Your task to perform on an android device: Search for a new mascara Image 0: 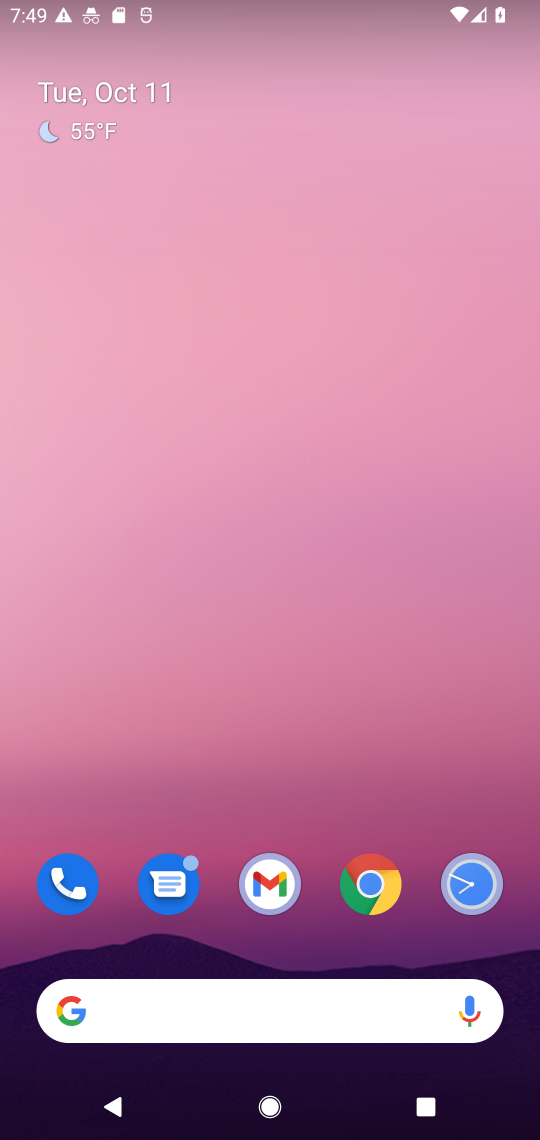
Step 0: drag from (327, 960) to (235, 52)
Your task to perform on an android device: Search for a new mascara Image 1: 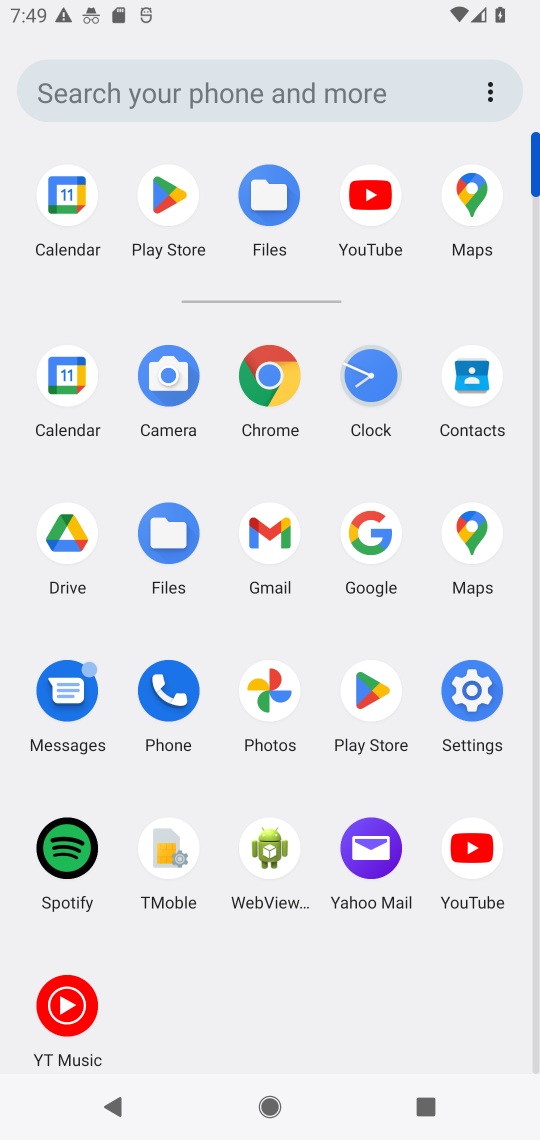
Step 1: click (370, 542)
Your task to perform on an android device: Search for a new mascara Image 2: 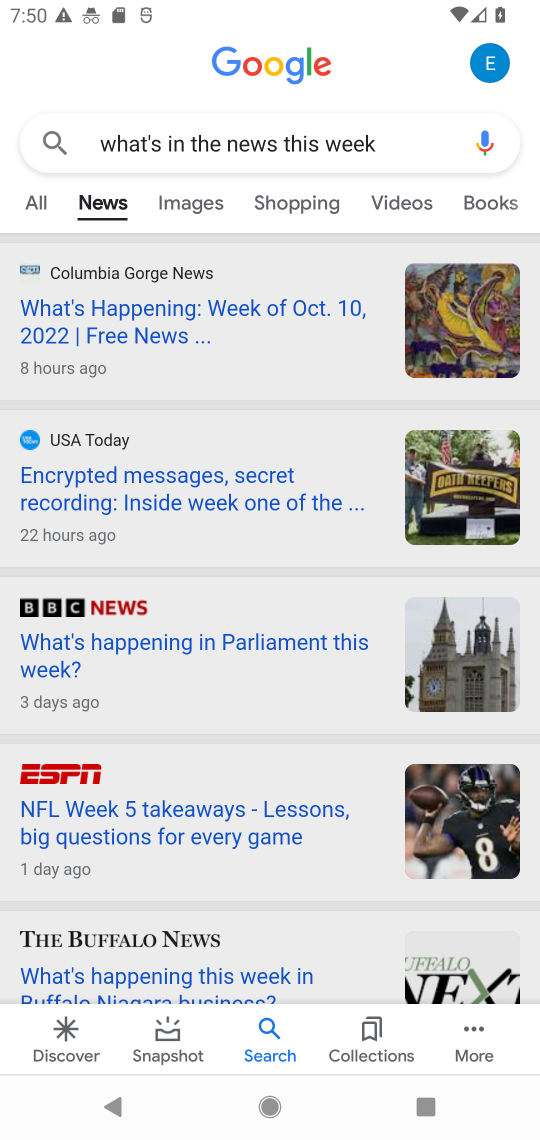
Step 2: press home button
Your task to perform on an android device: Search for a new mascara Image 3: 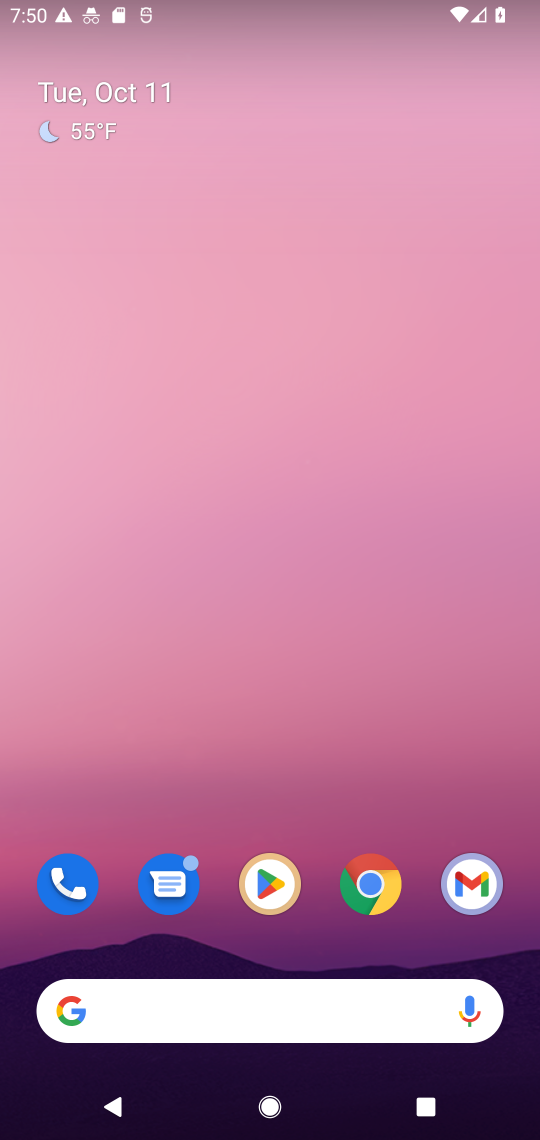
Step 3: drag from (313, 921) to (250, 2)
Your task to perform on an android device: Search for a new mascara Image 4: 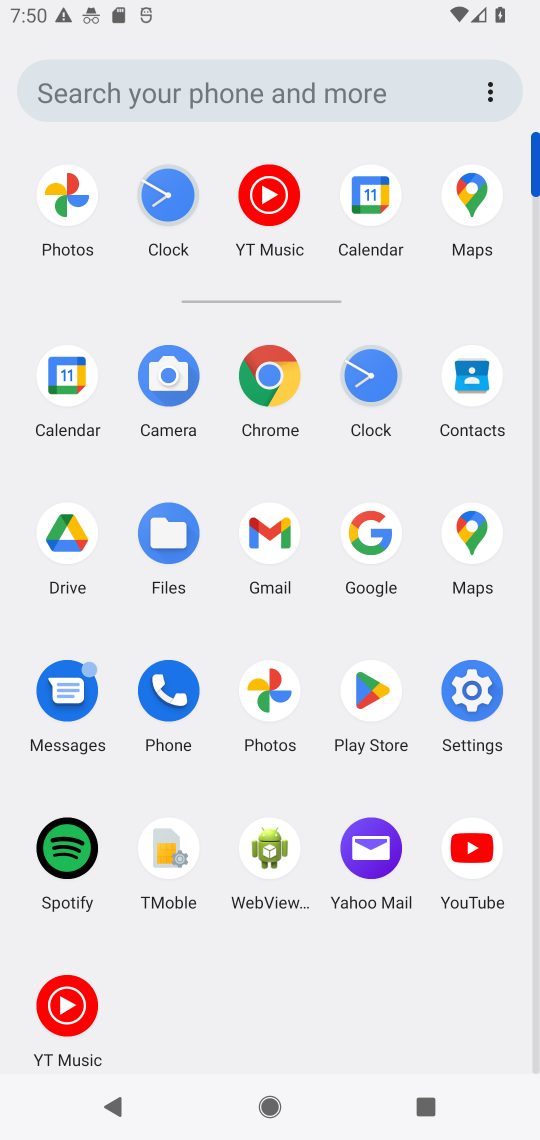
Step 4: click (369, 530)
Your task to perform on an android device: Search for a new mascara Image 5: 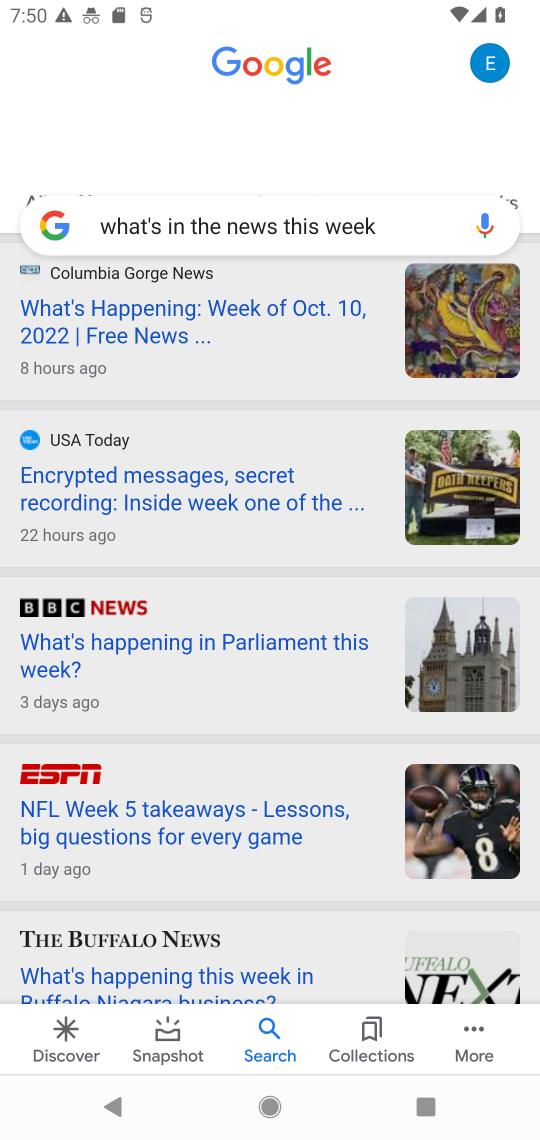
Step 5: click (393, 224)
Your task to perform on an android device: Search for a new mascara Image 6: 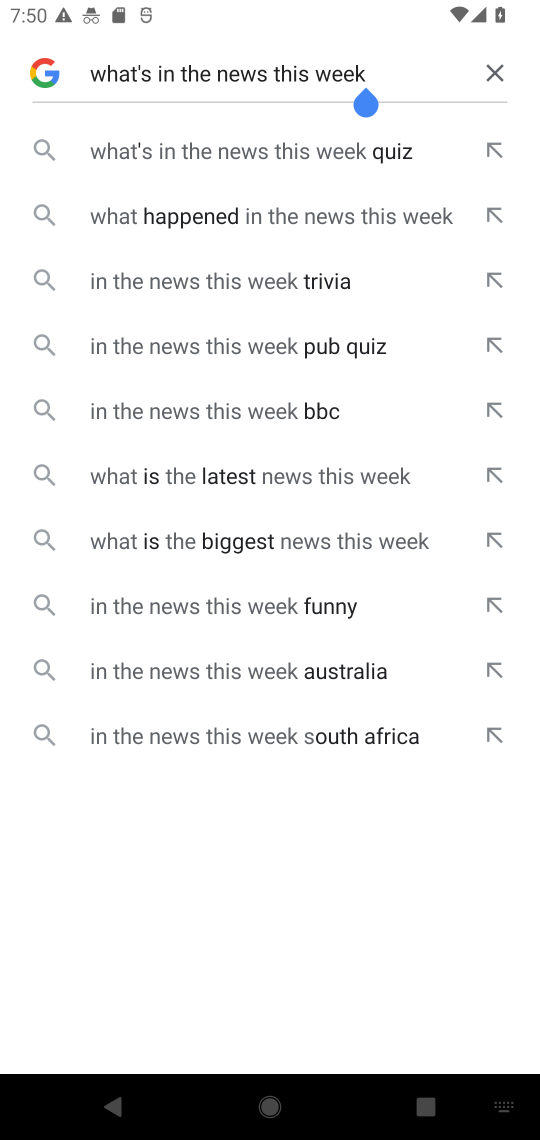
Step 6: click (493, 69)
Your task to perform on an android device: Search for a new mascara Image 7: 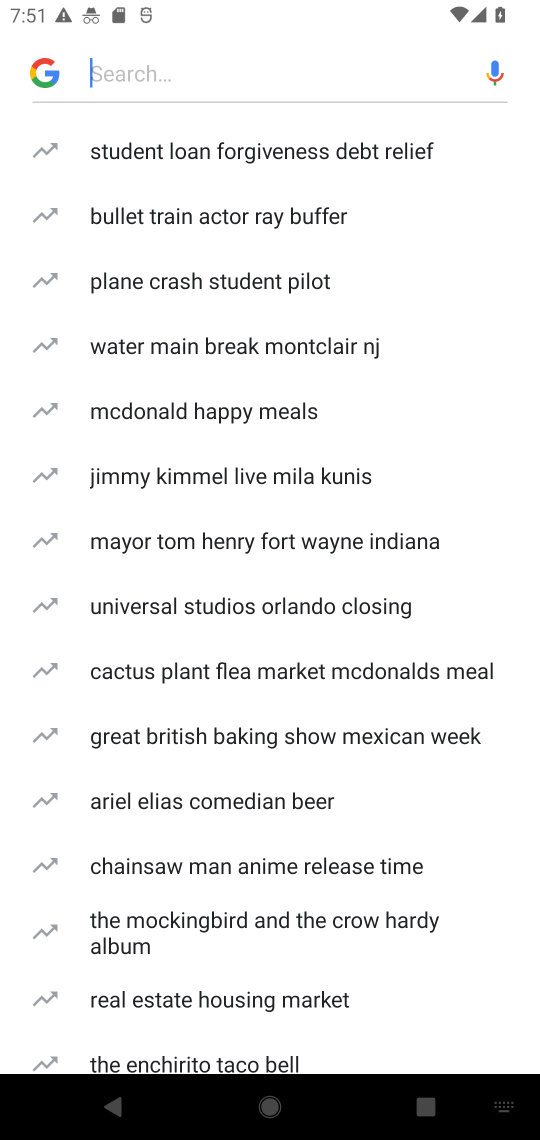
Step 7: type "new mascara"
Your task to perform on an android device: Search for a new mascara Image 8: 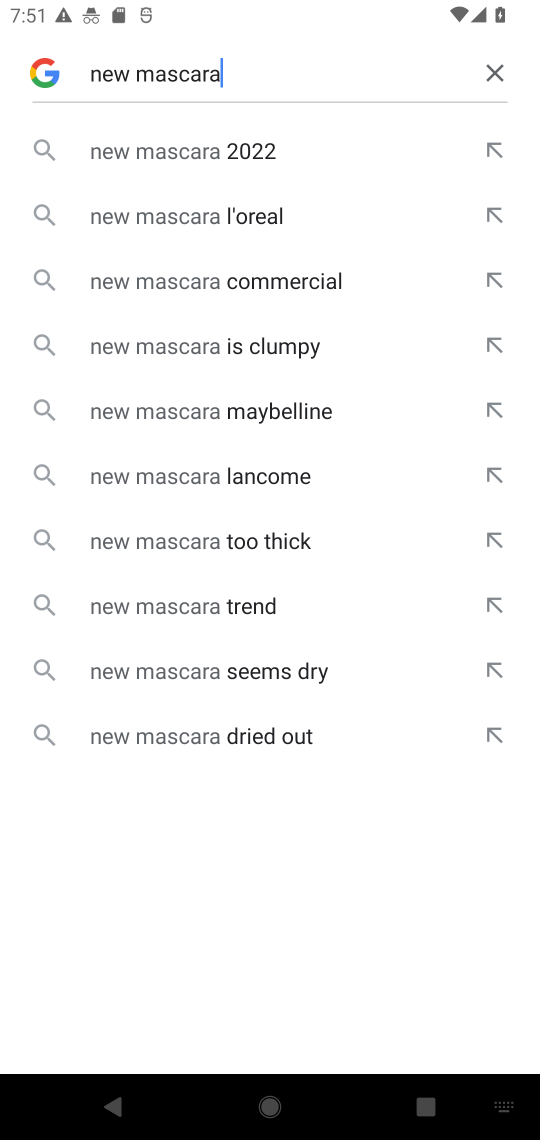
Step 8: click (231, 147)
Your task to perform on an android device: Search for a new mascara Image 9: 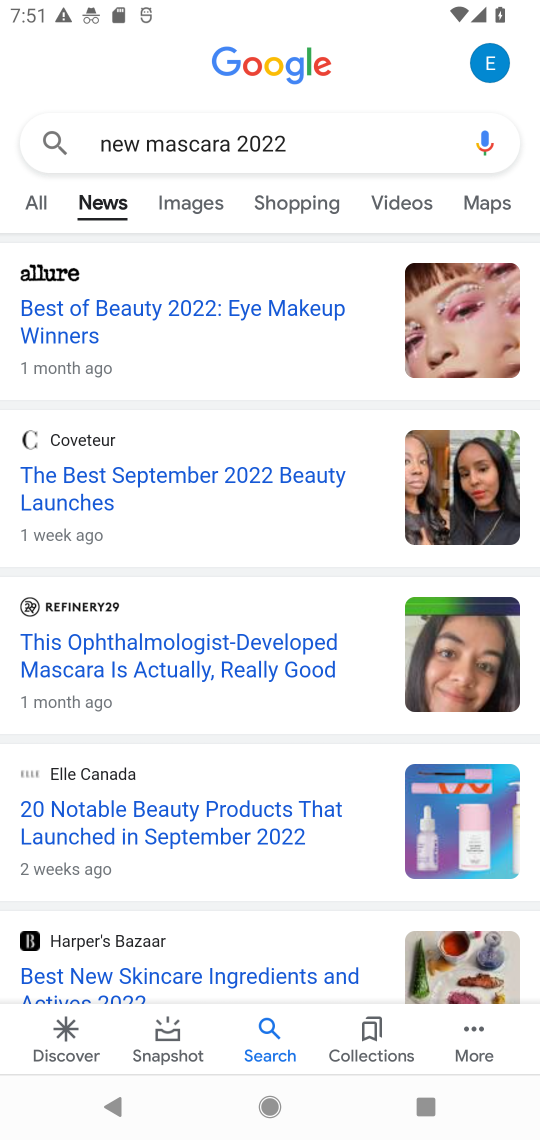
Step 9: click (46, 196)
Your task to perform on an android device: Search for a new mascara Image 10: 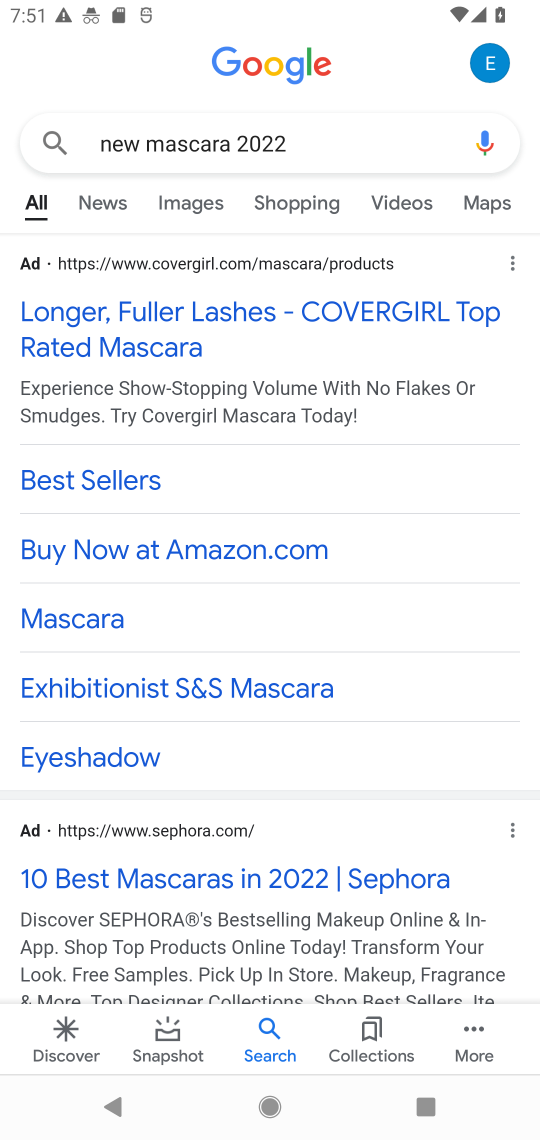
Step 10: drag from (250, 884) to (210, 522)
Your task to perform on an android device: Search for a new mascara Image 11: 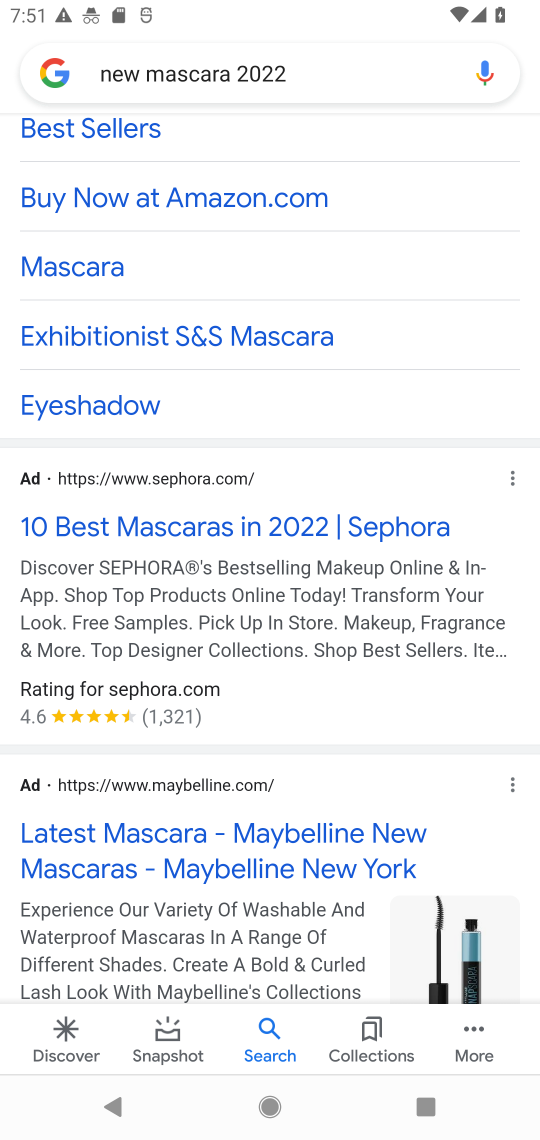
Step 11: click (222, 863)
Your task to perform on an android device: Search for a new mascara Image 12: 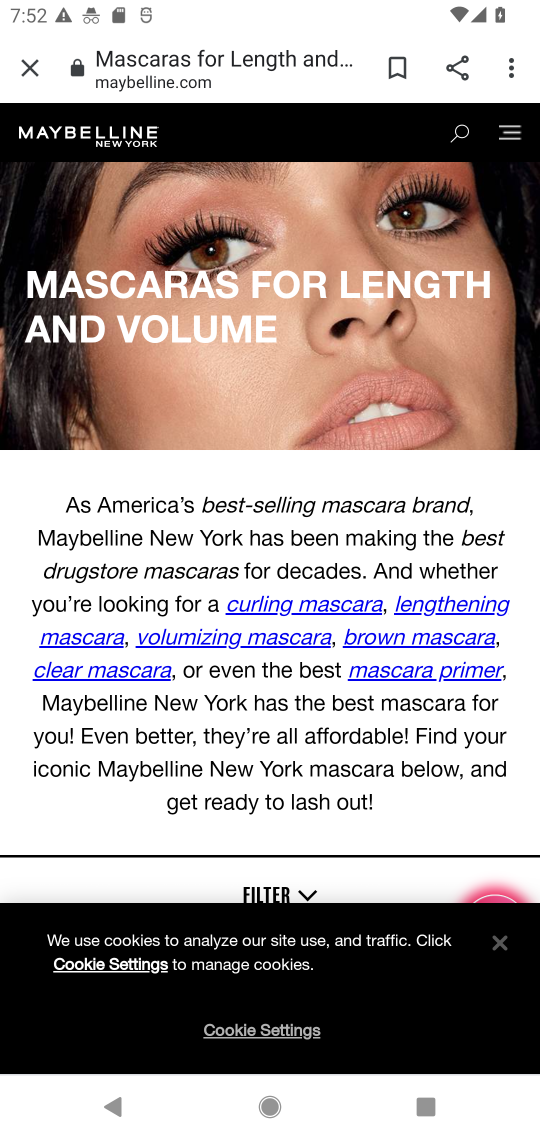
Step 12: task complete